Your task to perform on an android device: snooze an email in the gmail app Image 0: 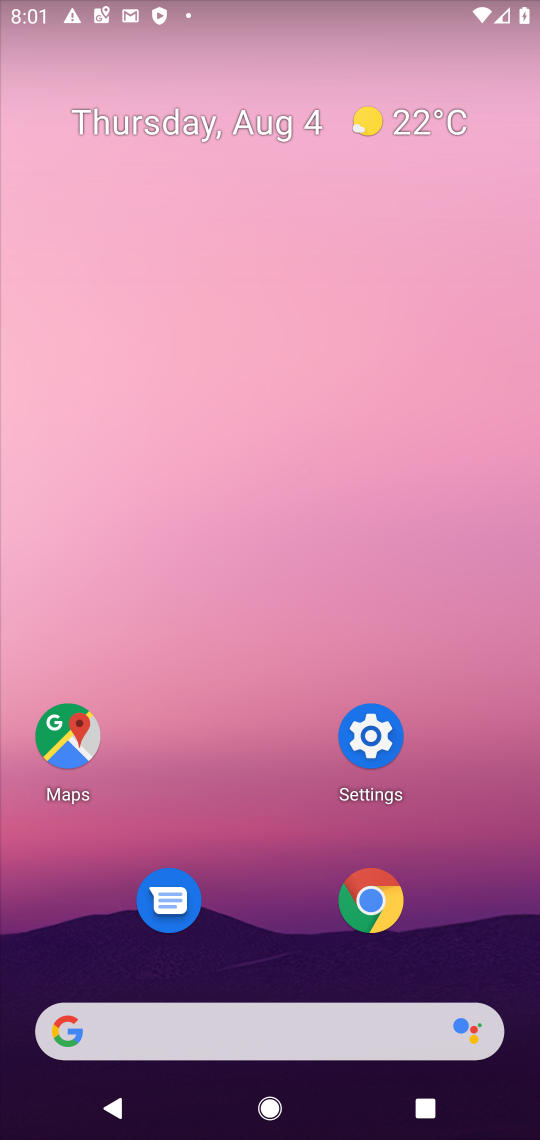
Step 0: press home button
Your task to perform on an android device: snooze an email in the gmail app Image 1: 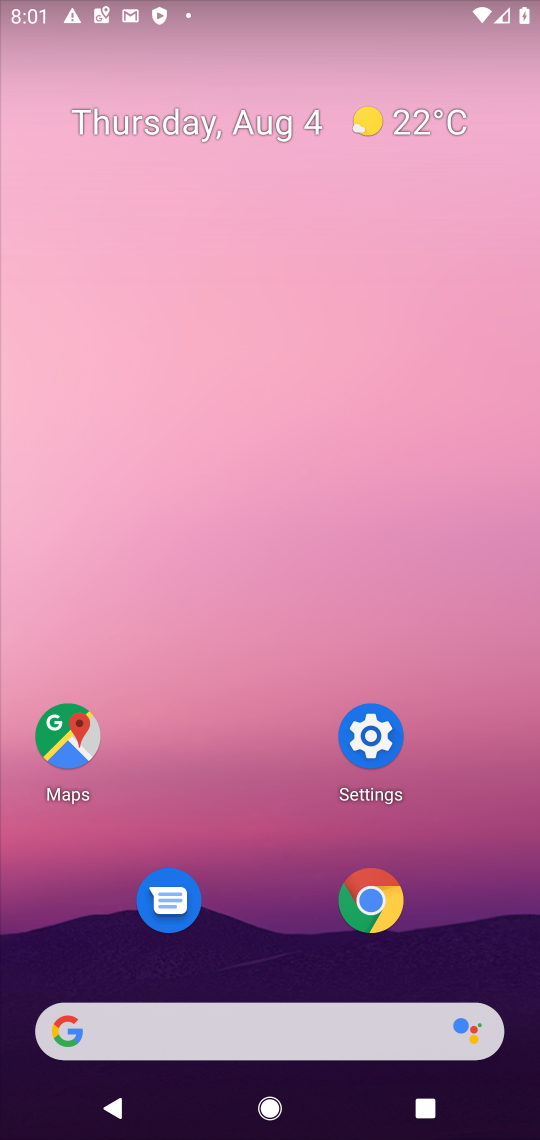
Step 1: drag from (247, 947) to (464, 34)
Your task to perform on an android device: snooze an email in the gmail app Image 2: 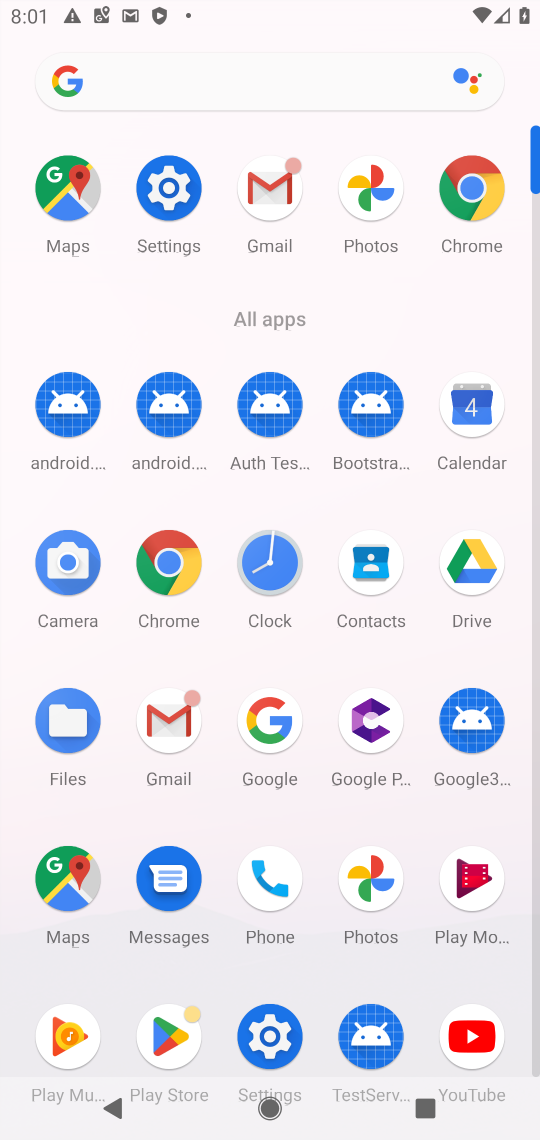
Step 2: click (261, 196)
Your task to perform on an android device: snooze an email in the gmail app Image 3: 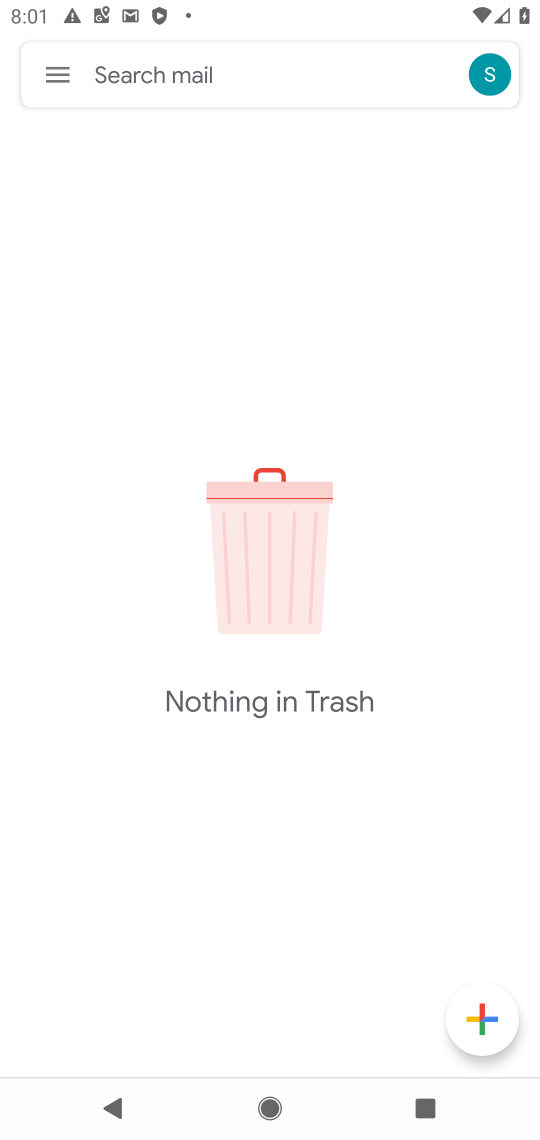
Step 3: click (61, 75)
Your task to perform on an android device: snooze an email in the gmail app Image 4: 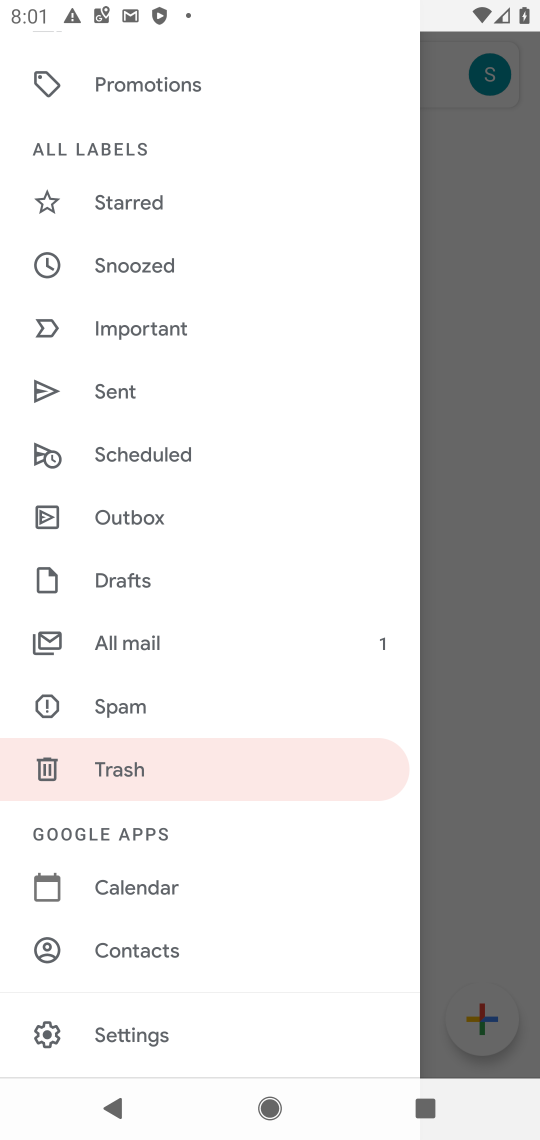
Step 4: drag from (216, 165) to (200, 759)
Your task to perform on an android device: snooze an email in the gmail app Image 5: 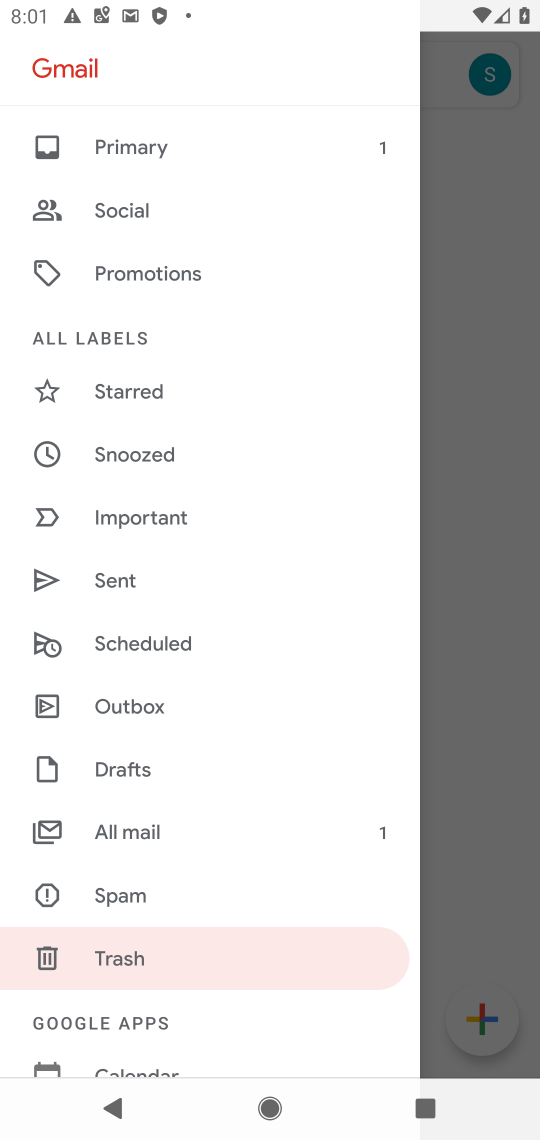
Step 5: click (151, 832)
Your task to perform on an android device: snooze an email in the gmail app Image 6: 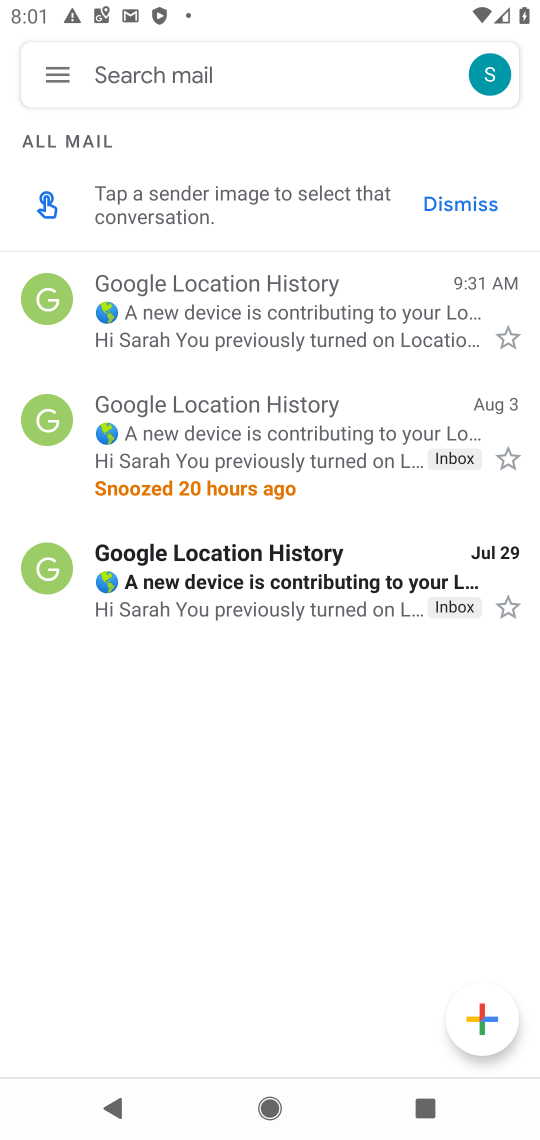
Step 6: click (58, 301)
Your task to perform on an android device: snooze an email in the gmail app Image 7: 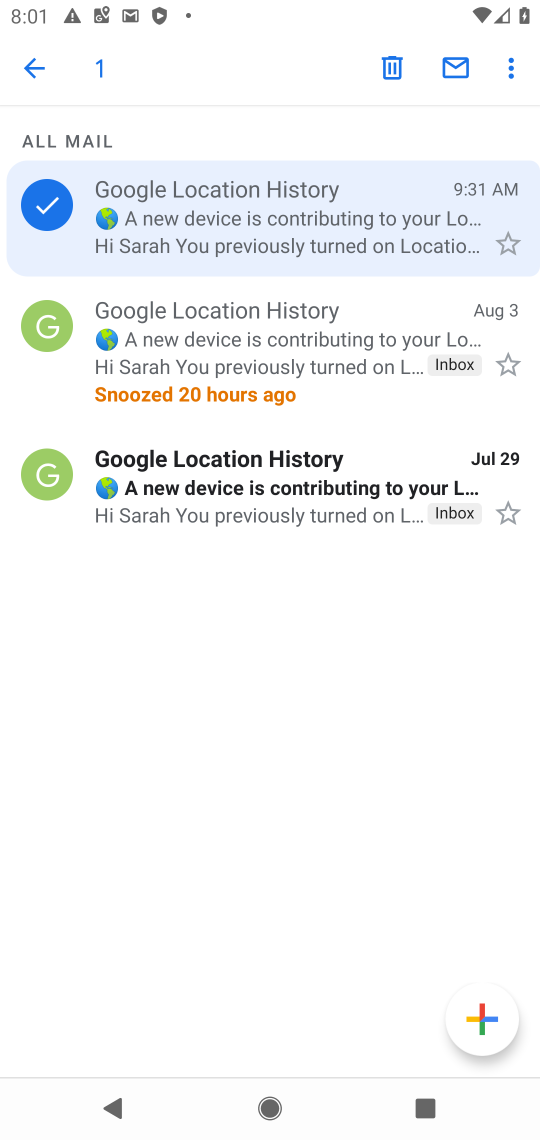
Step 7: click (505, 64)
Your task to perform on an android device: snooze an email in the gmail app Image 8: 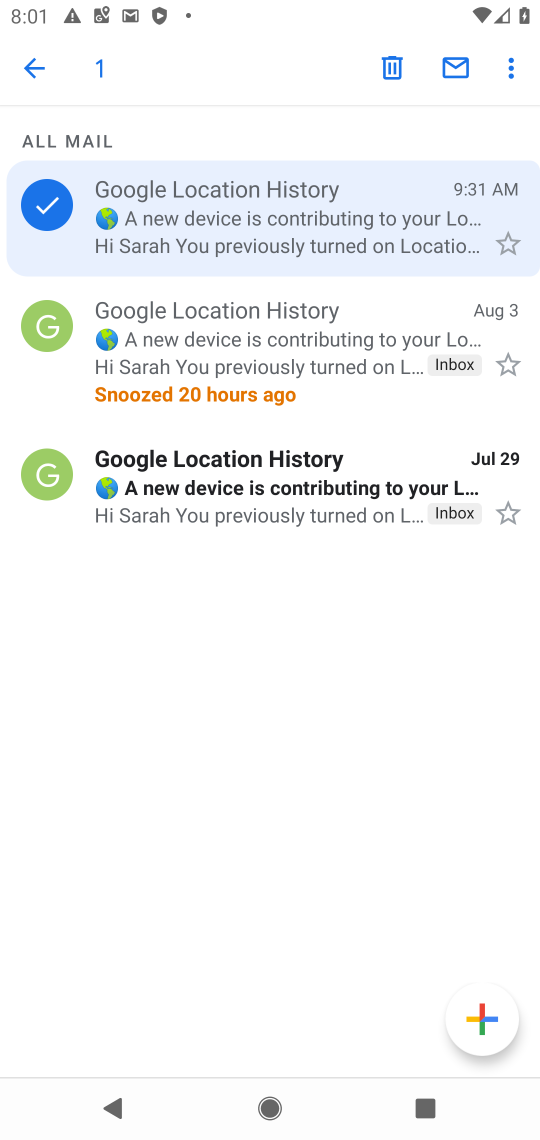
Step 8: click (509, 70)
Your task to perform on an android device: snooze an email in the gmail app Image 9: 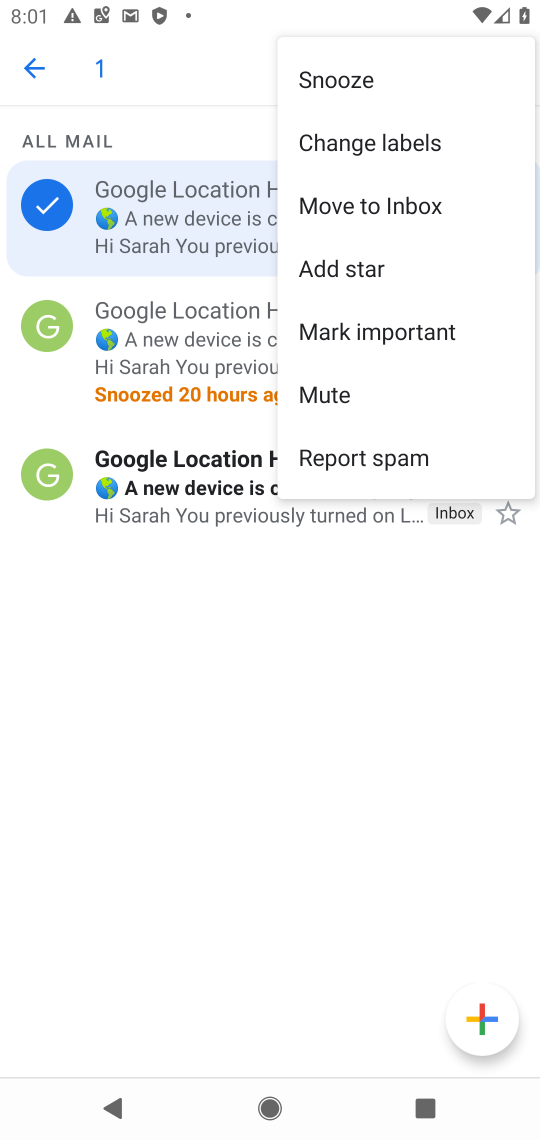
Step 9: click (332, 80)
Your task to perform on an android device: snooze an email in the gmail app Image 10: 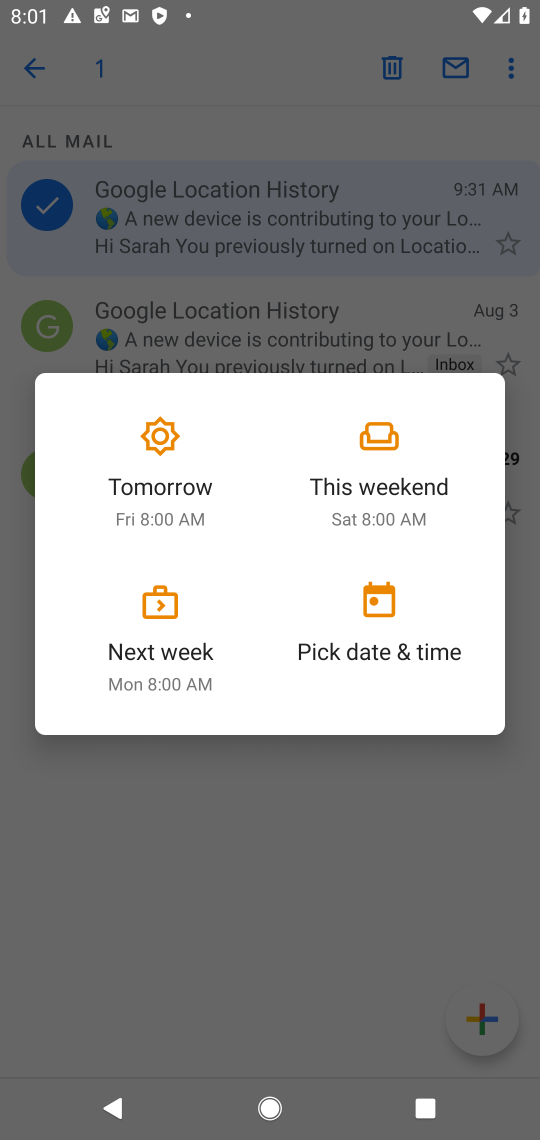
Step 10: click (159, 510)
Your task to perform on an android device: snooze an email in the gmail app Image 11: 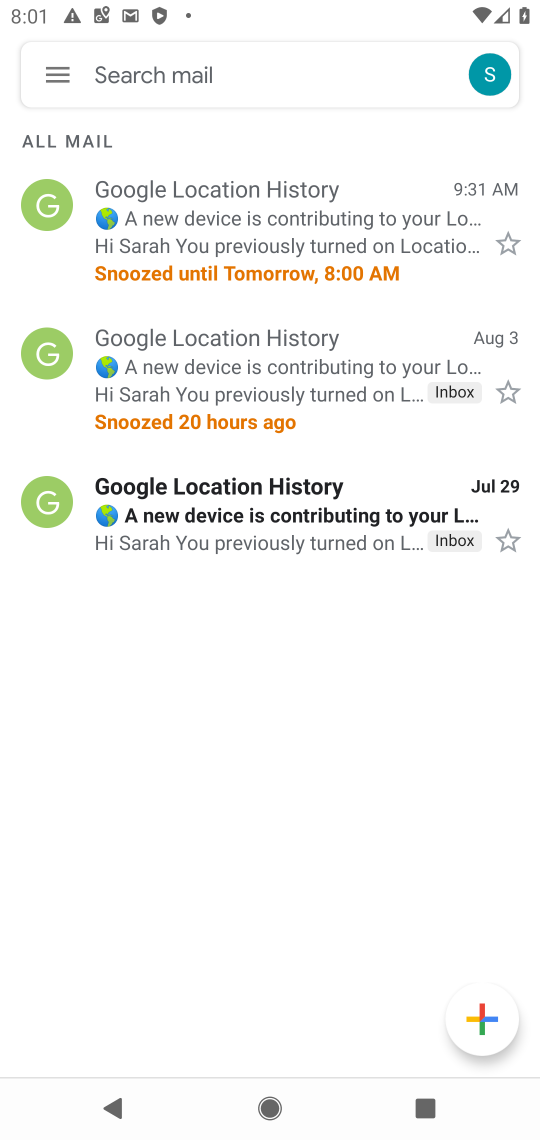
Step 11: task complete